Your task to perform on an android device: Open notification settings Image 0: 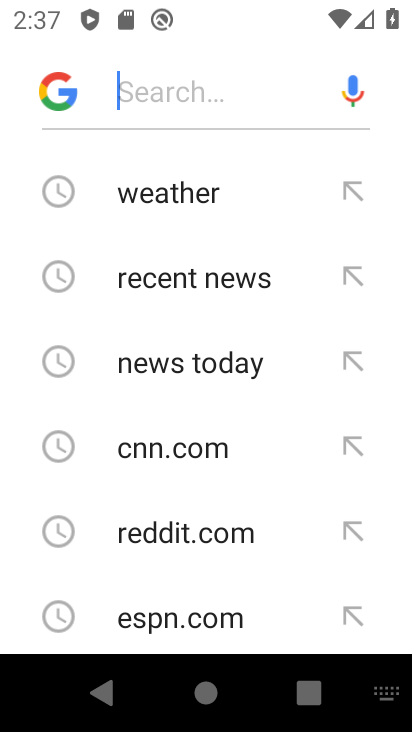
Step 0: press home button
Your task to perform on an android device: Open notification settings Image 1: 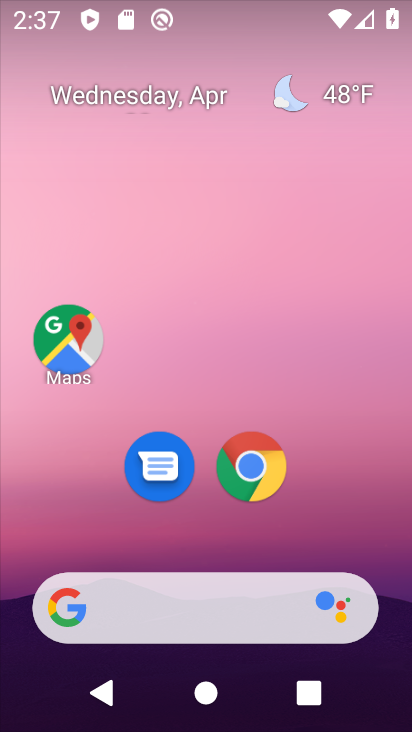
Step 1: drag from (356, 524) to (372, 100)
Your task to perform on an android device: Open notification settings Image 2: 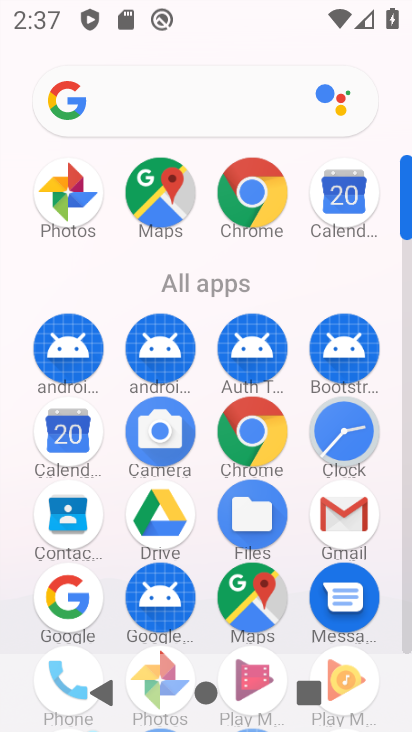
Step 2: drag from (270, 282) to (289, 128)
Your task to perform on an android device: Open notification settings Image 3: 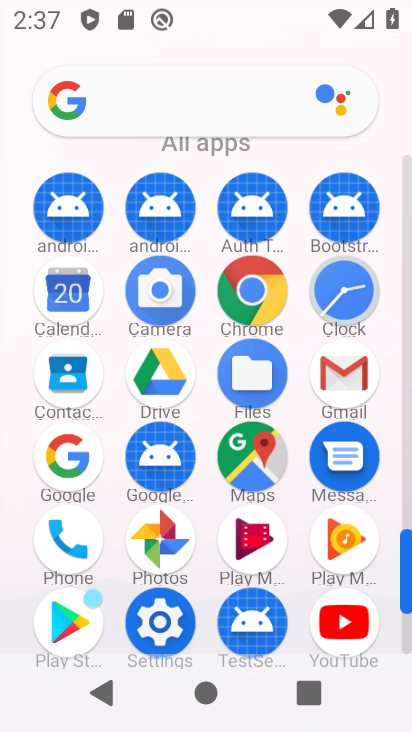
Step 3: click (175, 613)
Your task to perform on an android device: Open notification settings Image 4: 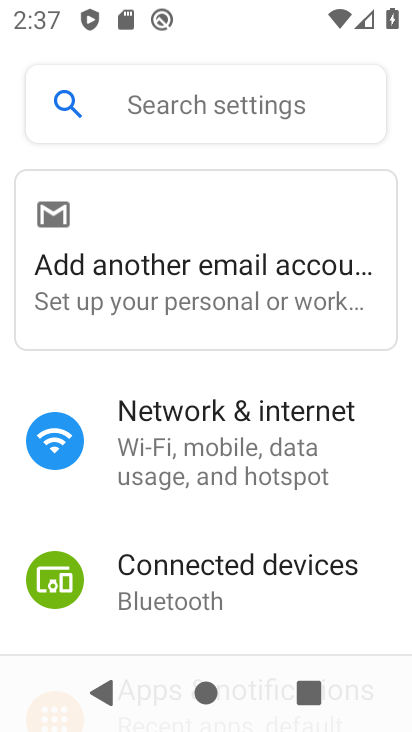
Step 4: drag from (273, 505) to (272, 201)
Your task to perform on an android device: Open notification settings Image 5: 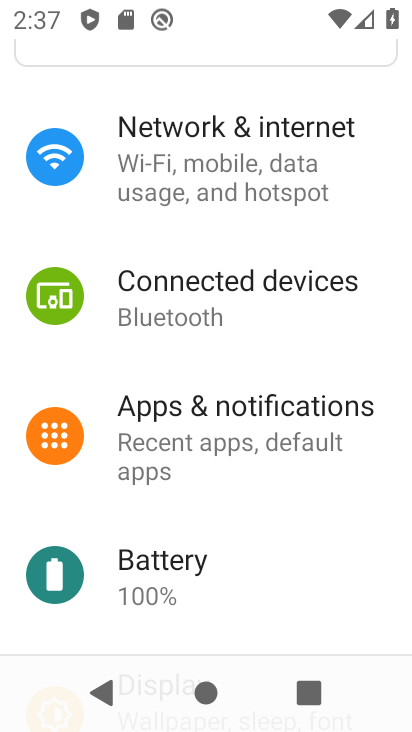
Step 5: click (271, 405)
Your task to perform on an android device: Open notification settings Image 6: 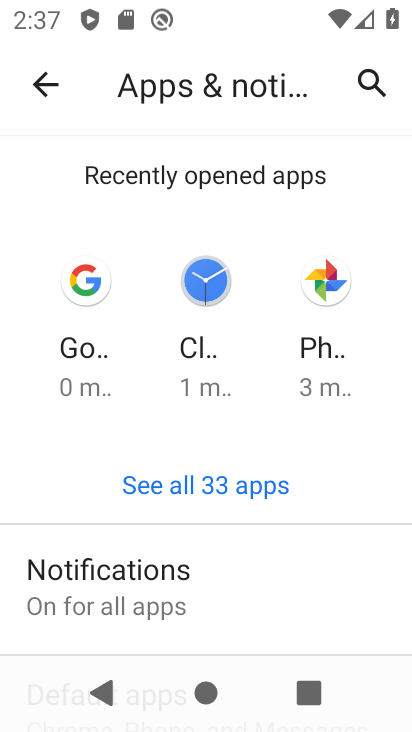
Step 6: task complete